Your task to perform on an android device: Go to calendar. Show me events next week Image 0: 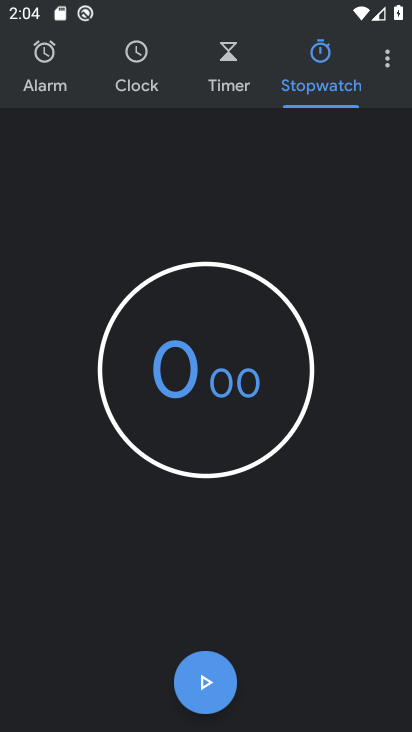
Step 0: press home button
Your task to perform on an android device: Go to calendar. Show me events next week Image 1: 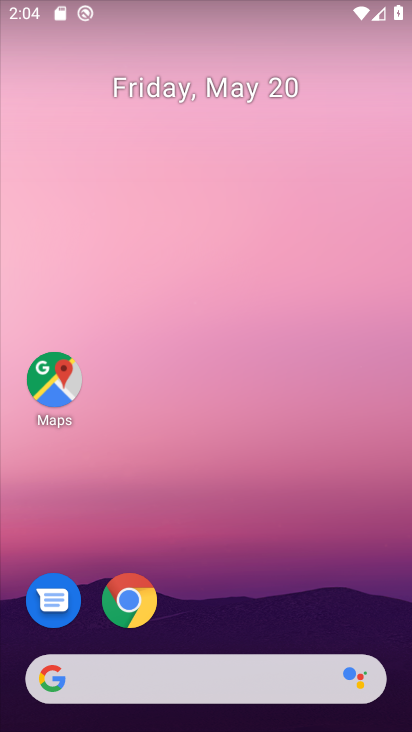
Step 1: click (193, 75)
Your task to perform on an android device: Go to calendar. Show me events next week Image 2: 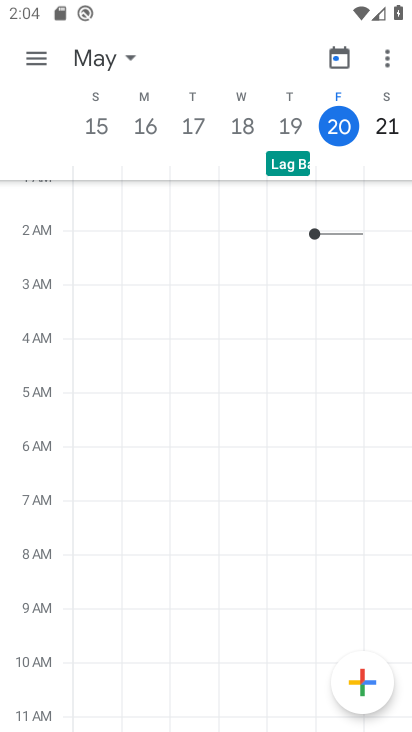
Step 2: click (127, 57)
Your task to perform on an android device: Go to calendar. Show me events next week Image 3: 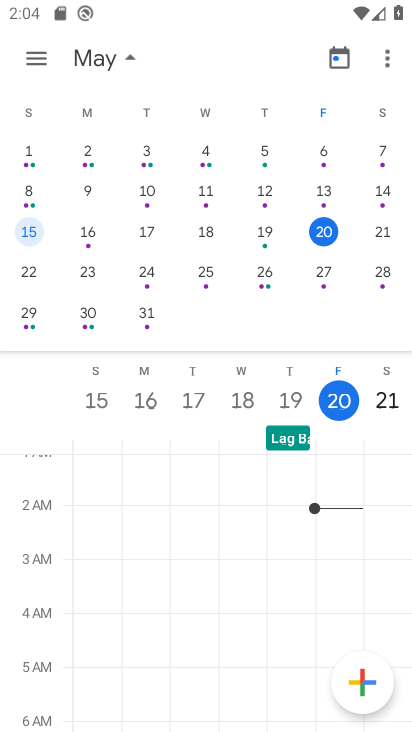
Step 3: click (29, 272)
Your task to perform on an android device: Go to calendar. Show me events next week Image 4: 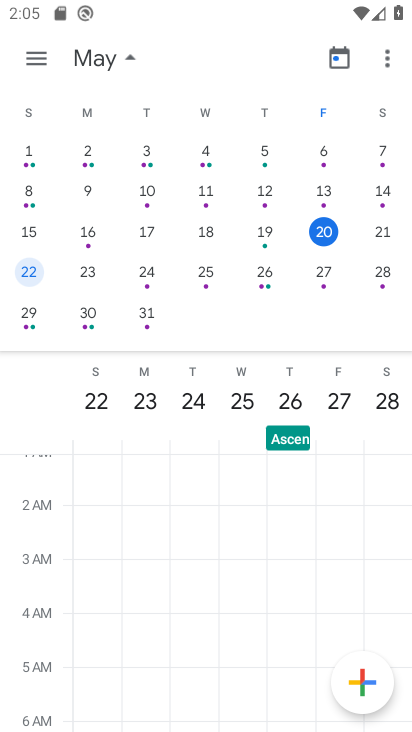
Step 4: task complete